Your task to perform on an android device: allow cookies in the chrome app Image 0: 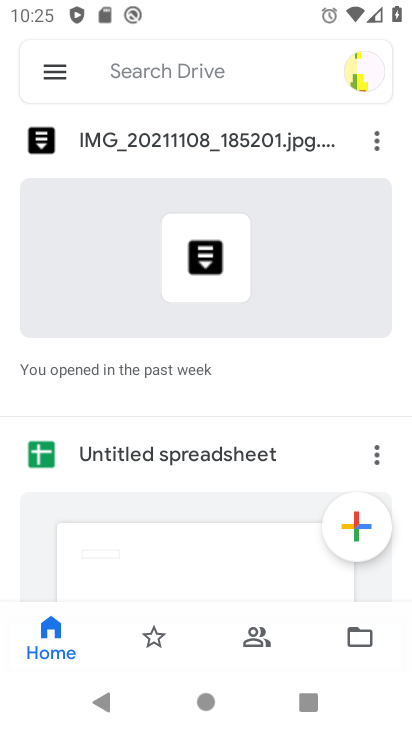
Step 0: press back button
Your task to perform on an android device: allow cookies in the chrome app Image 1: 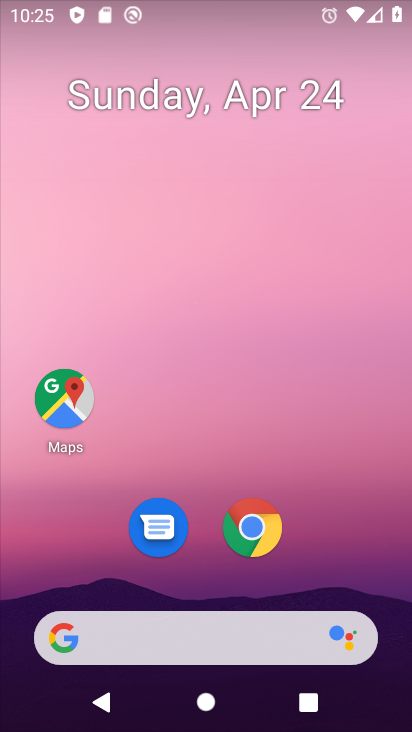
Step 1: click (245, 543)
Your task to perform on an android device: allow cookies in the chrome app Image 2: 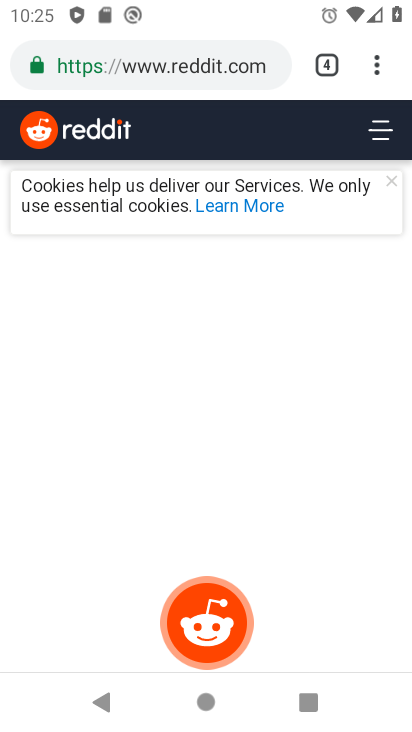
Step 2: drag from (380, 56) to (153, 572)
Your task to perform on an android device: allow cookies in the chrome app Image 3: 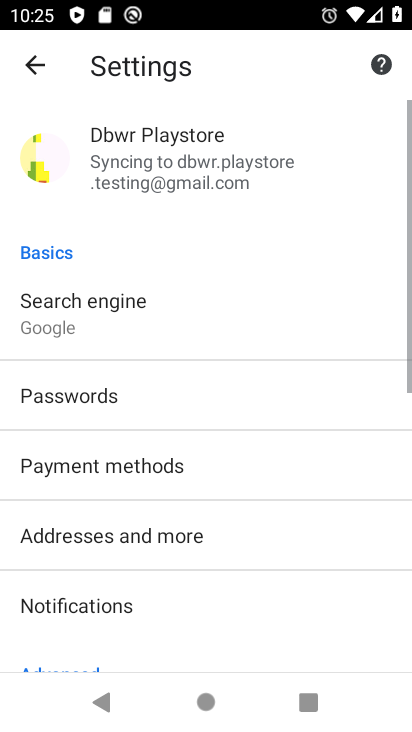
Step 3: drag from (121, 615) to (261, 63)
Your task to perform on an android device: allow cookies in the chrome app Image 4: 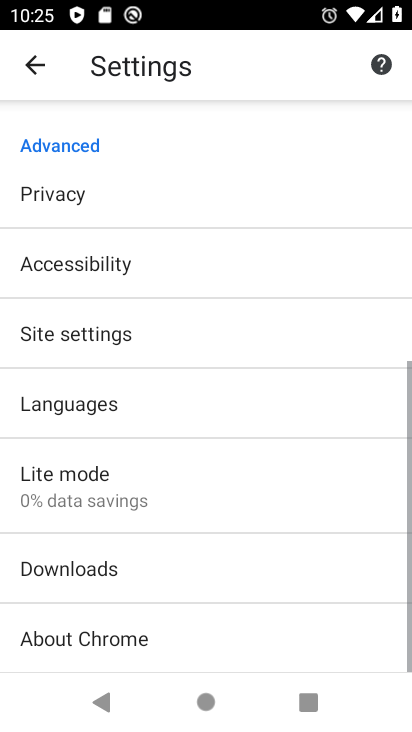
Step 4: click (149, 331)
Your task to perform on an android device: allow cookies in the chrome app Image 5: 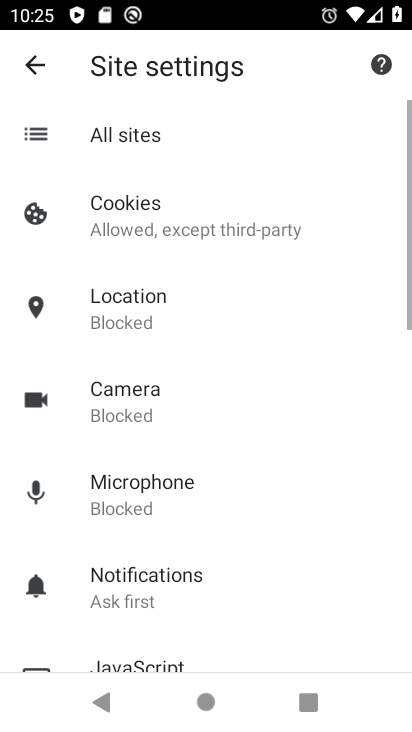
Step 5: click (157, 225)
Your task to perform on an android device: allow cookies in the chrome app Image 6: 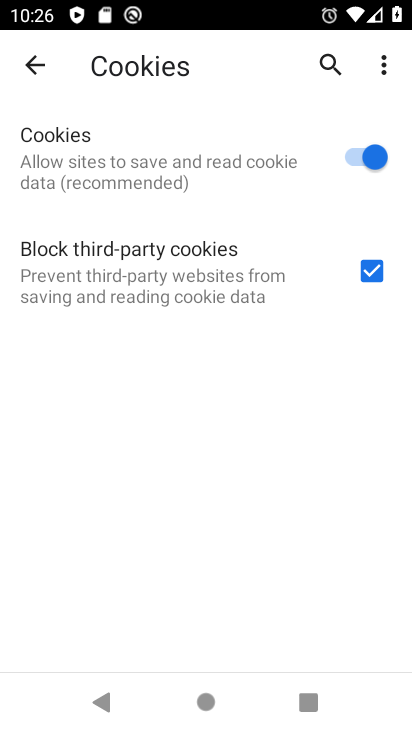
Step 6: task complete